Your task to perform on an android device: Go to wifi settings Image 0: 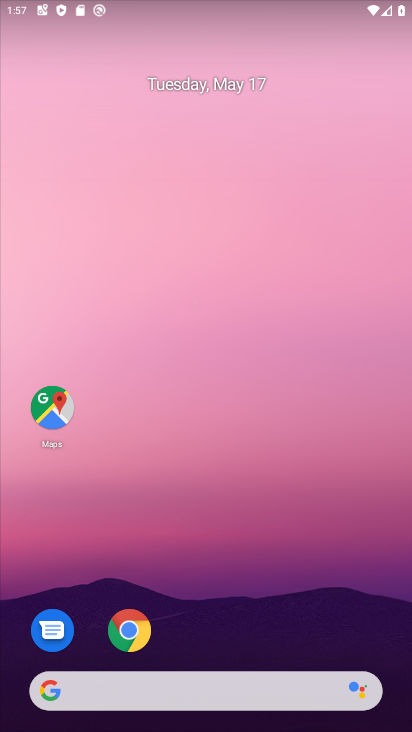
Step 0: drag from (338, 624) to (353, 114)
Your task to perform on an android device: Go to wifi settings Image 1: 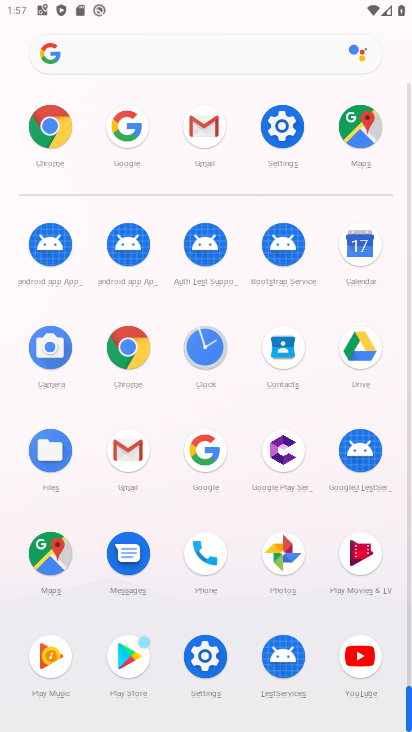
Step 1: click (288, 132)
Your task to perform on an android device: Go to wifi settings Image 2: 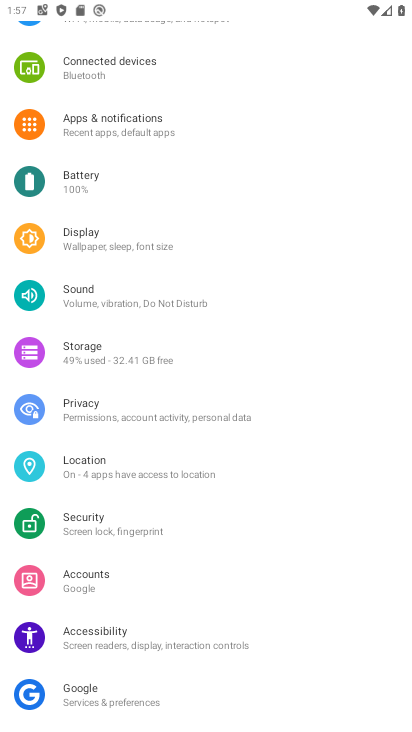
Step 2: drag from (240, 105) to (240, 673)
Your task to perform on an android device: Go to wifi settings Image 3: 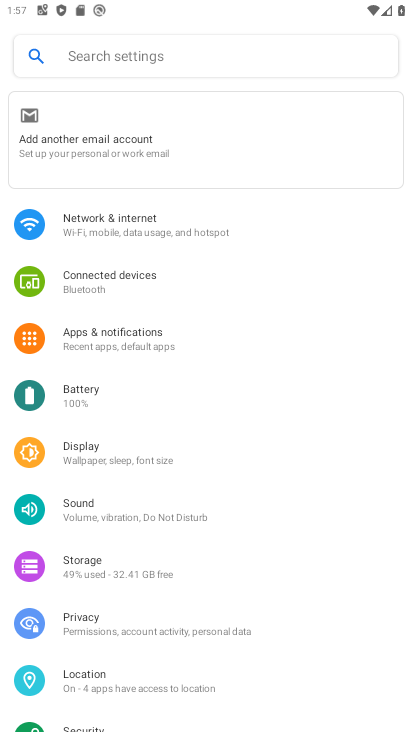
Step 3: click (156, 222)
Your task to perform on an android device: Go to wifi settings Image 4: 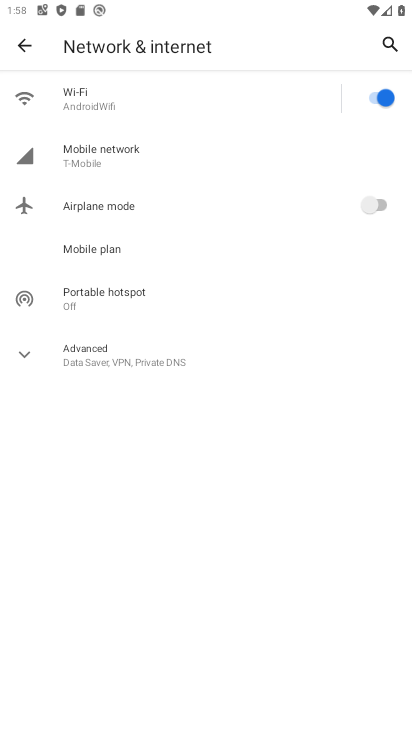
Step 4: click (224, 91)
Your task to perform on an android device: Go to wifi settings Image 5: 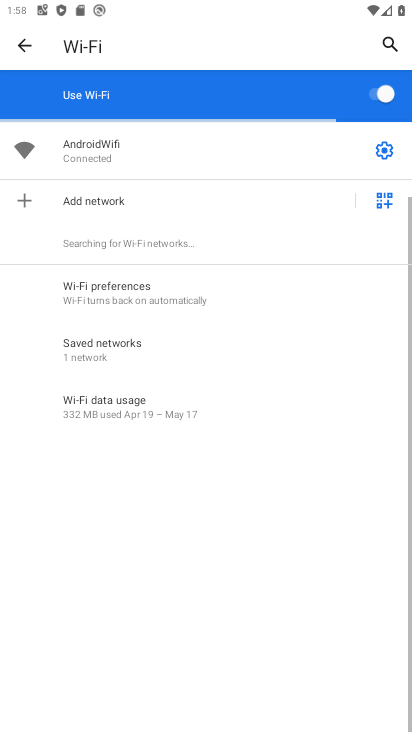
Step 5: task complete